Your task to perform on an android device: What is the recent news? Image 0: 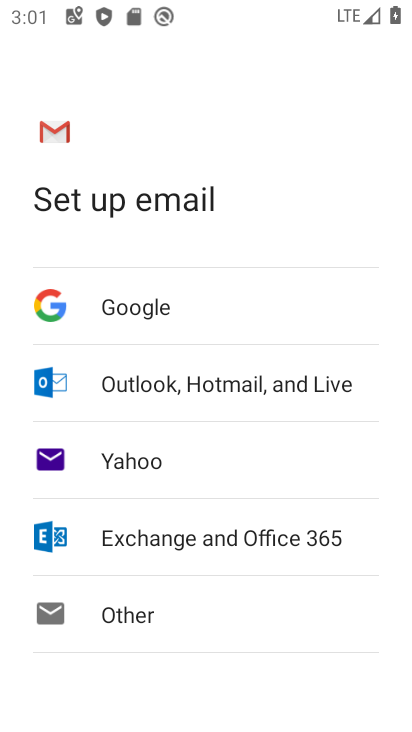
Step 0: press home button
Your task to perform on an android device: What is the recent news? Image 1: 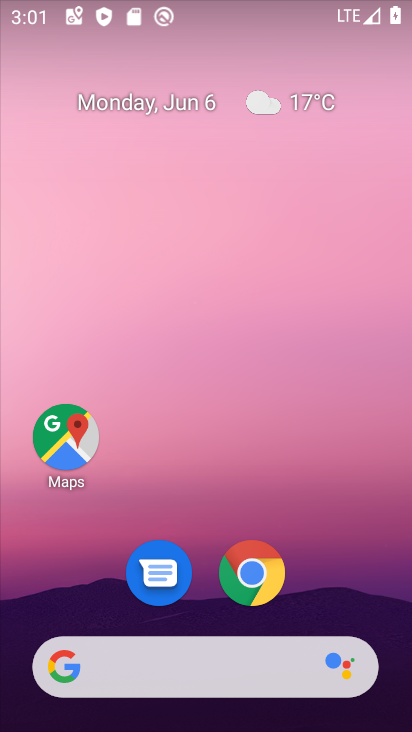
Step 1: task complete